Your task to perform on an android device: Search for seafood restaurants on Google Maps Image 0: 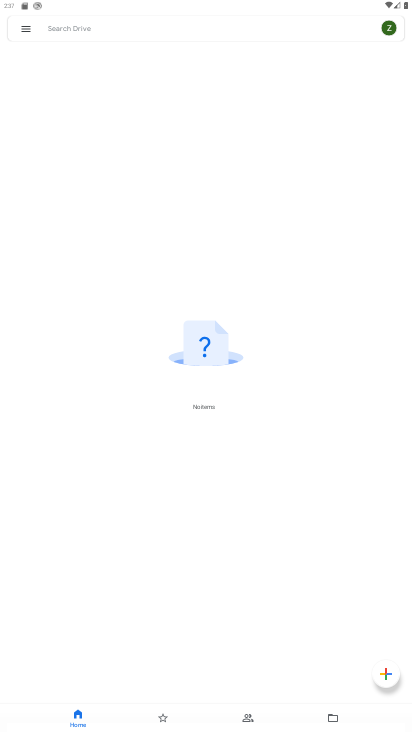
Step 0: press home button
Your task to perform on an android device: Search for seafood restaurants on Google Maps Image 1: 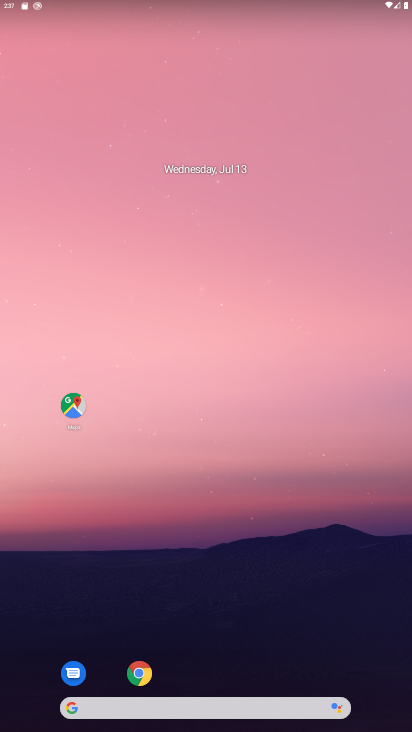
Step 1: drag from (171, 666) to (214, 116)
Your task to perform on an android device: Search for seafood restaurants on Google Maps Image 2: 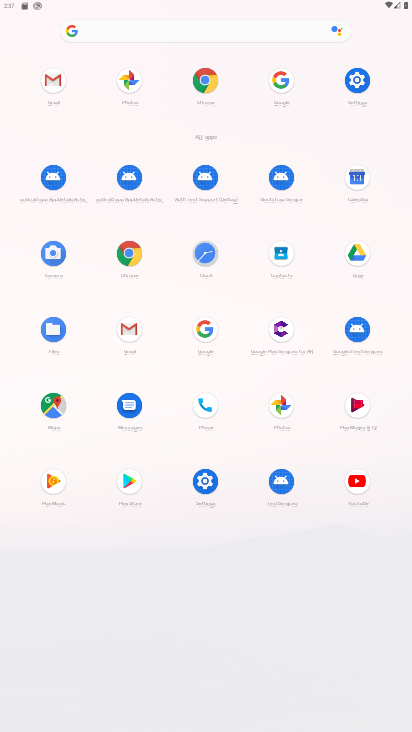
Step 2: click (65, 407)
Your task to perform on an android device: Search for seafood restaurants on Google Maps Image 3: 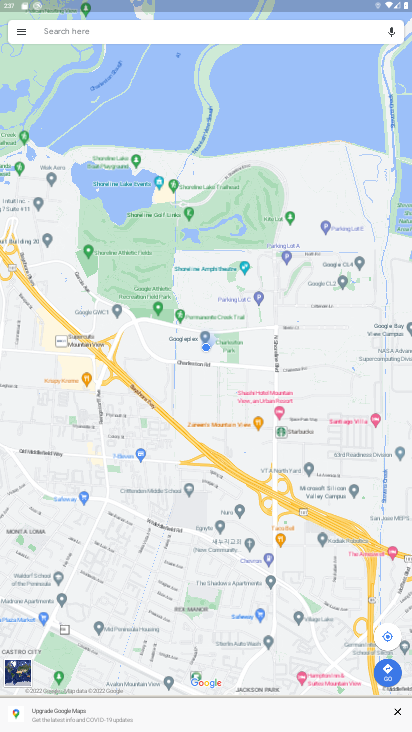
Step 3: click (134, 38)
Your task to perform on an android device: Search for seafood restaurants on Google Maps Image 4: 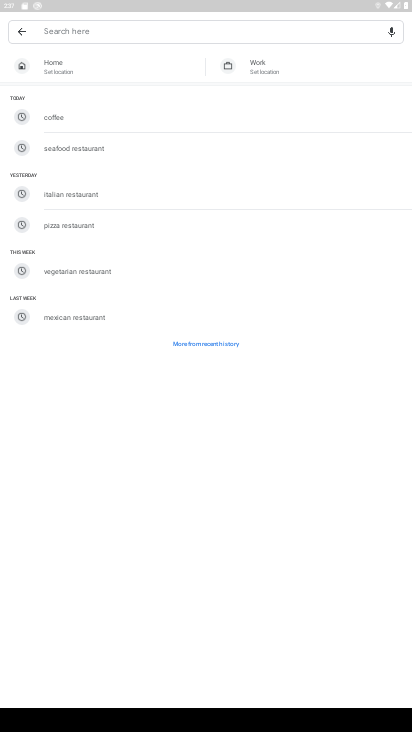
Step 4: type "seafood restaurants"
Your task to perform on an android device: Search for seafood restaurants on Google Maps Image 5: 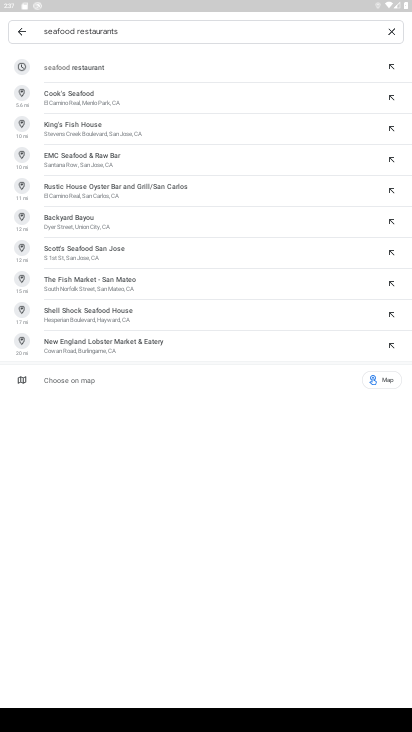
Step 5: click (119, 71)
Your task to perform on an android device: Search for seafood restaurants on Google Maps Image 6: 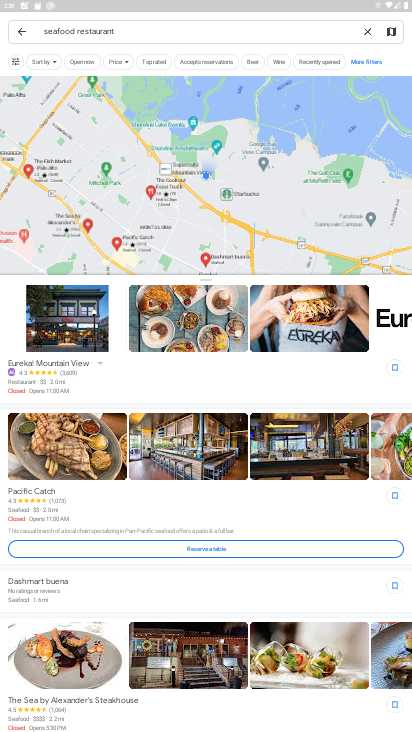
Step 6: task complete